Your task to perform on an android device: Open accessibility settings Image 0: 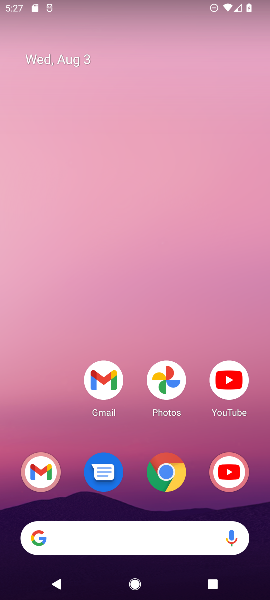
Step 0: drag from (150, 496) to (74, 69)
Your task to perform on an android device: Open accessibility settings Image 1: 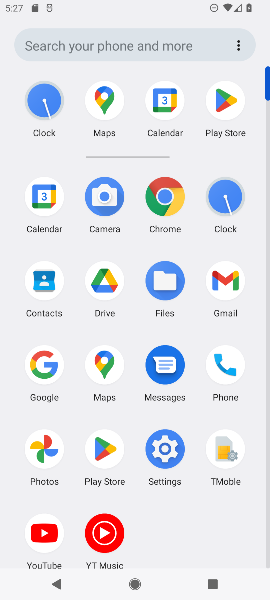
Step 1: click (170, 432)
Your task to perform on an android device: Open accessibility settings Image 2: 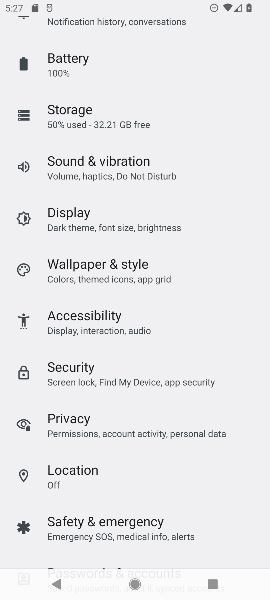
Step 2: click (90, 314)
Your task to perform on an android device: Open accessibility settings Image 3: 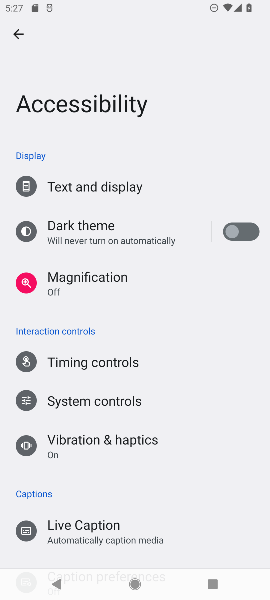
Step 3: task complete